Your task to perform on an android device: Open Maps and search for coffee Image 0: 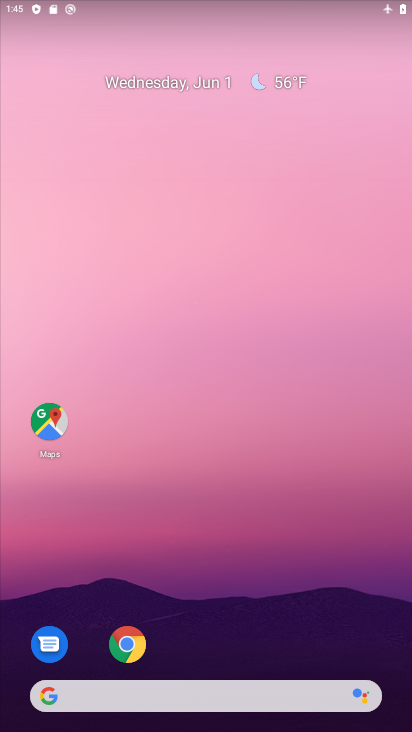
Step 0: drag from (257, 584) to (98, 10)
Your task to perform on an android device: Open Maps and search for coffee Image 1: 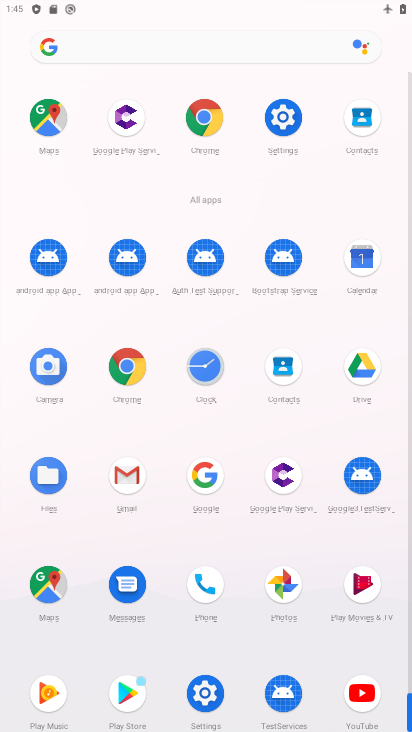
Step 1: drag from (6, 525) to (16, 240)
Your task to perform on an android device: Open Maps and search for coffee Image 2: 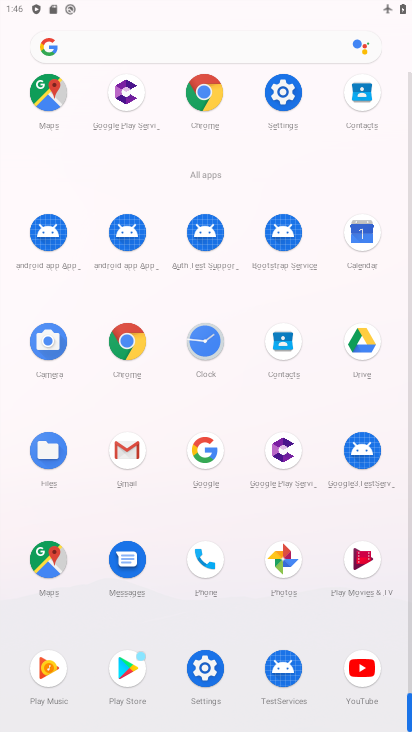
Step 2: drag from (0, 616) to (33, 258)
Your task to perform on an android device: Open Maps and search for coffee Image 3: 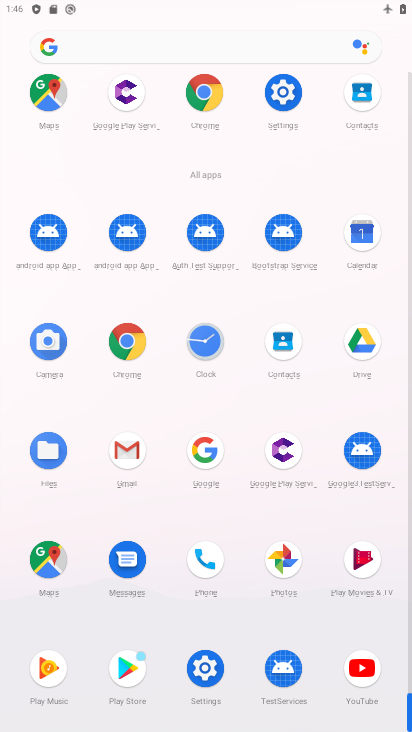
Step 3: click (43, 554)
Your task to perform on an android device: Open Maps and search for coffee Image 4: 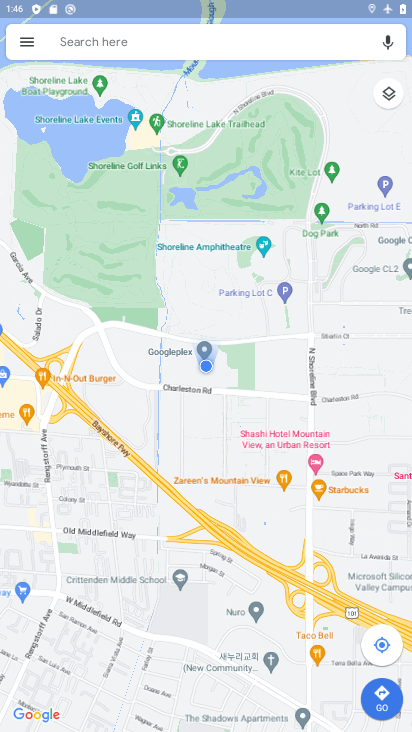
Step 4: click (150, 47)
Your task to perform on an android device: Open Maps and search for coffee Image 5: 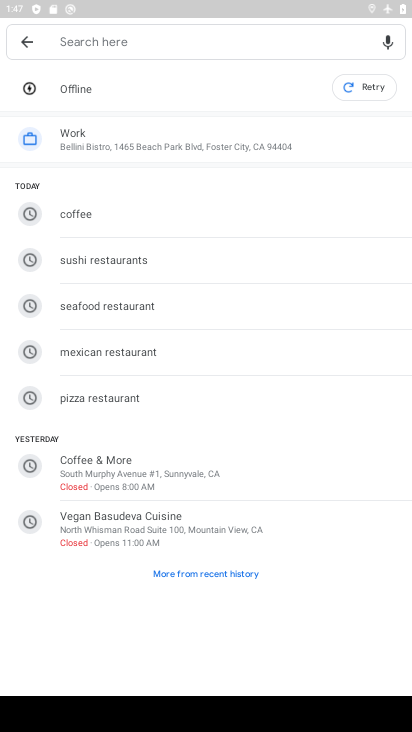
Step 5: click (102, 216)
Your task to perform on an android device: Open Maps and search for coffee Image 6: 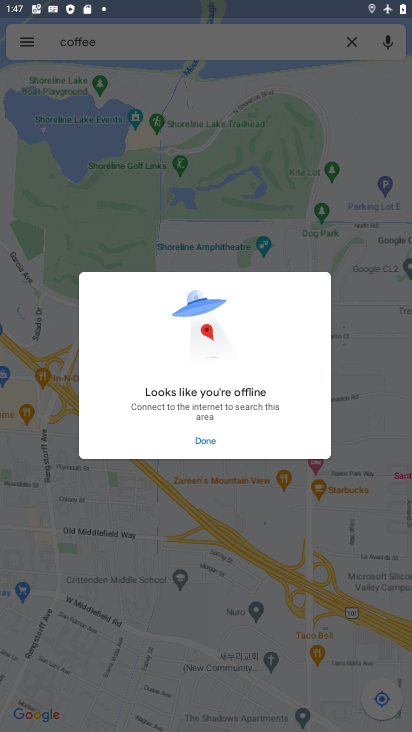
Step 6: task complete